Your task to perform on an android device: Open Google Chrome and click the shortcut for Amazon.com Image 0: 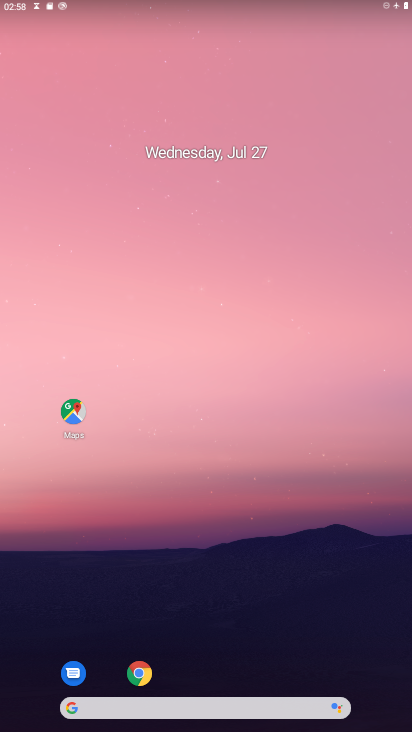
Step 0: drag from (238, 689) to (233, 128)
Your task to perform on an android device: Open Google Chrome and click the shortcut for Amazon.com Image 1: 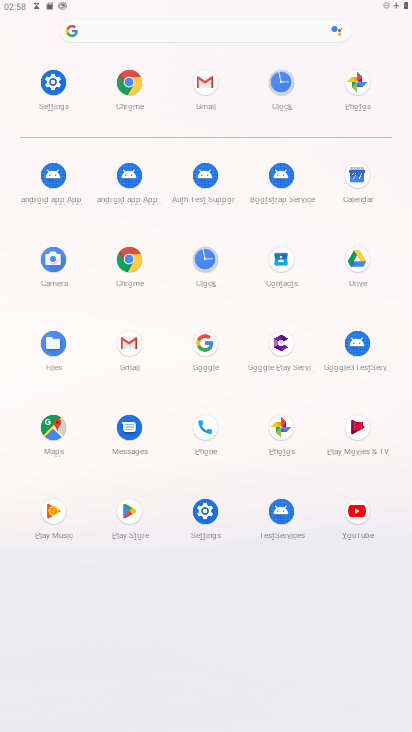
Step 1: click (128, 265)
Your task to perform on an android device: Open Google Chrome and click the shortcut for Amazon.com Image 2: 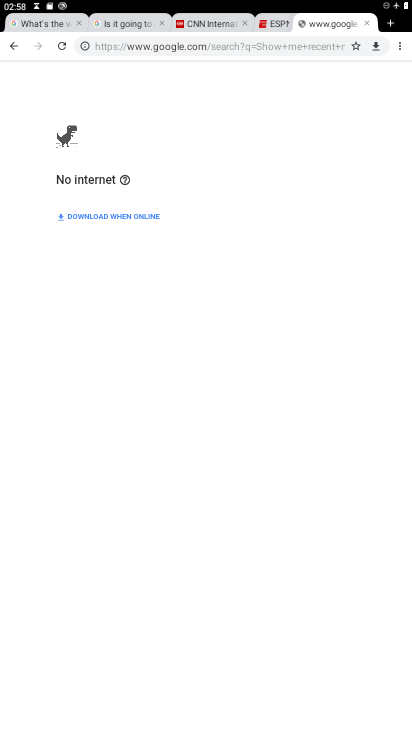
Step 2: click (391, 33)
Your task to perform on an android device: Open Google Chrome and click the shortcut for Amazon.com Image 3: 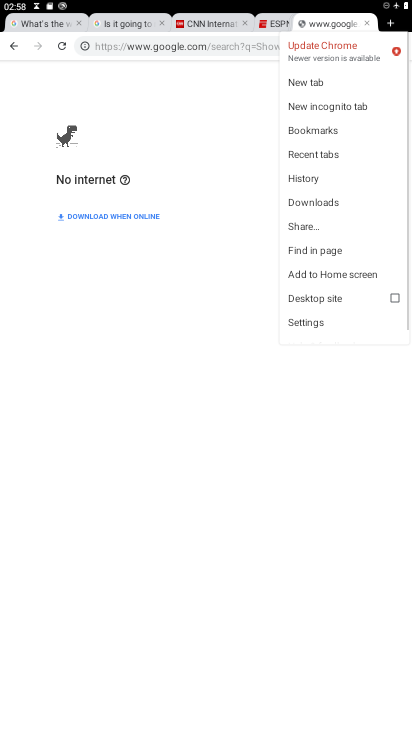
Step 3: click (309, 79)
Your task to perform on an android device: Open Google Chrome and click the shortcut for Amazon.com Image 4: 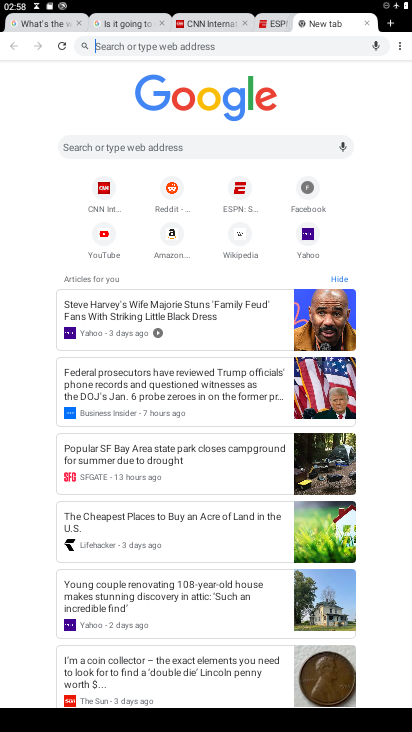
Step 4: click (180, 234)
Your task to perform on an android device: Open Google Chrome and click the shortcut for Amazon.com Image 5: 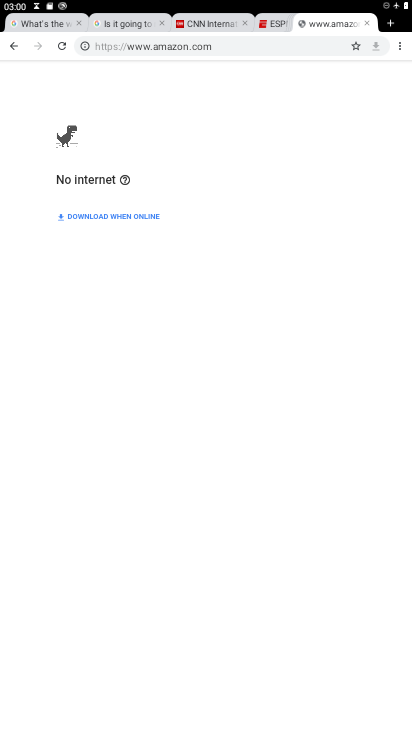
Step 5: task complete